Your task to perform on an android device: see tabs open on other devices in the chrome app Image 0: 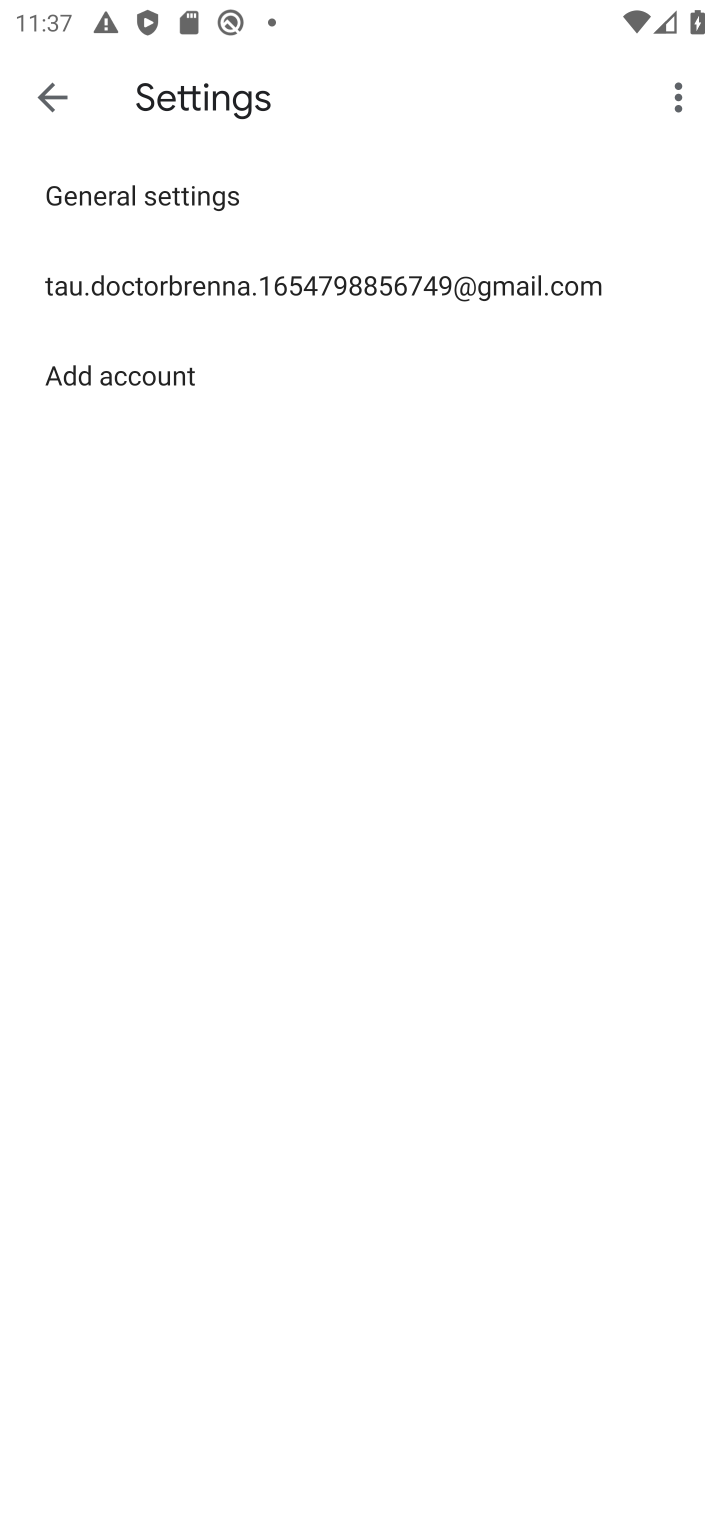
Step 0: press home button
Your task to perform on an android device: see tabs open on other devices in the chrome app Image 1: 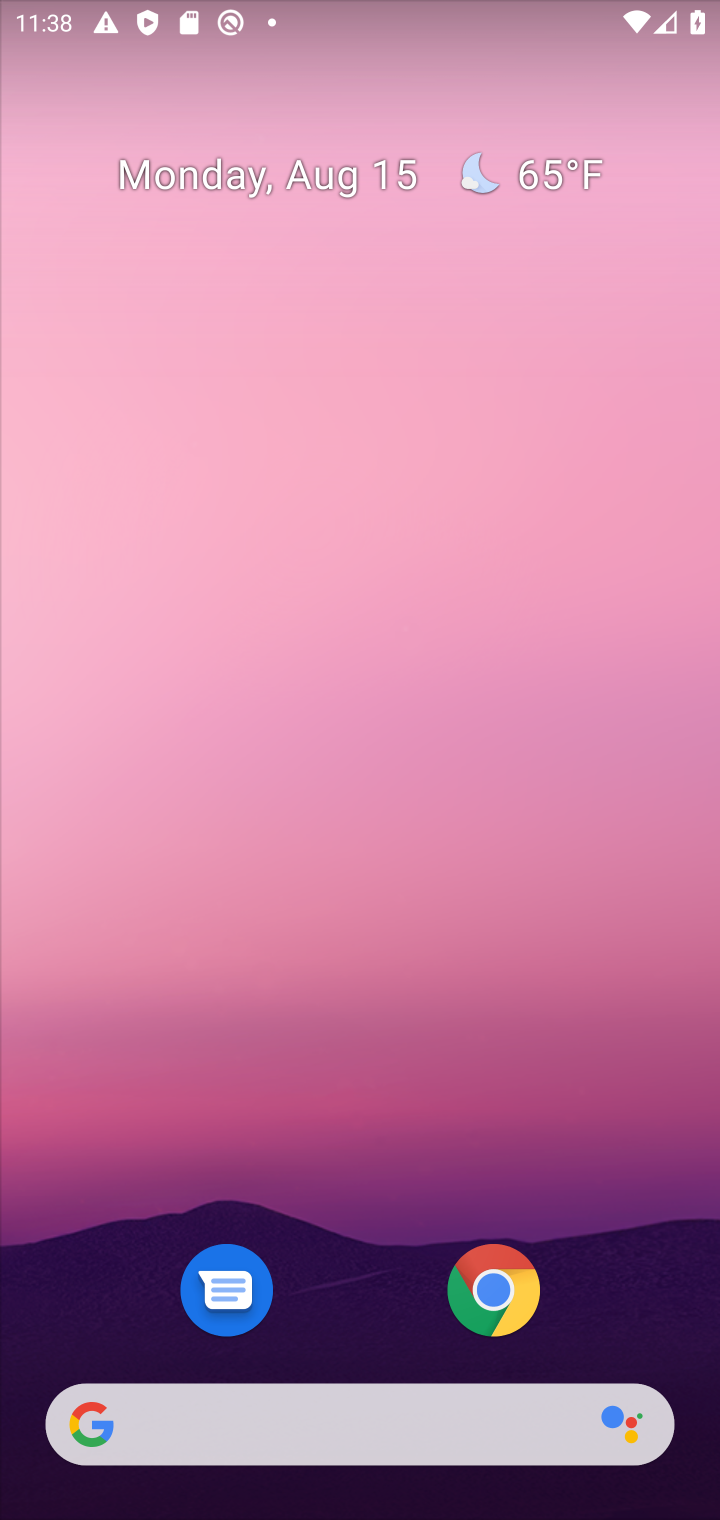
Step 1: click (512, 1261)
Your task to perform on an android device: see tabs open on other devices in the chrome app Image 2: 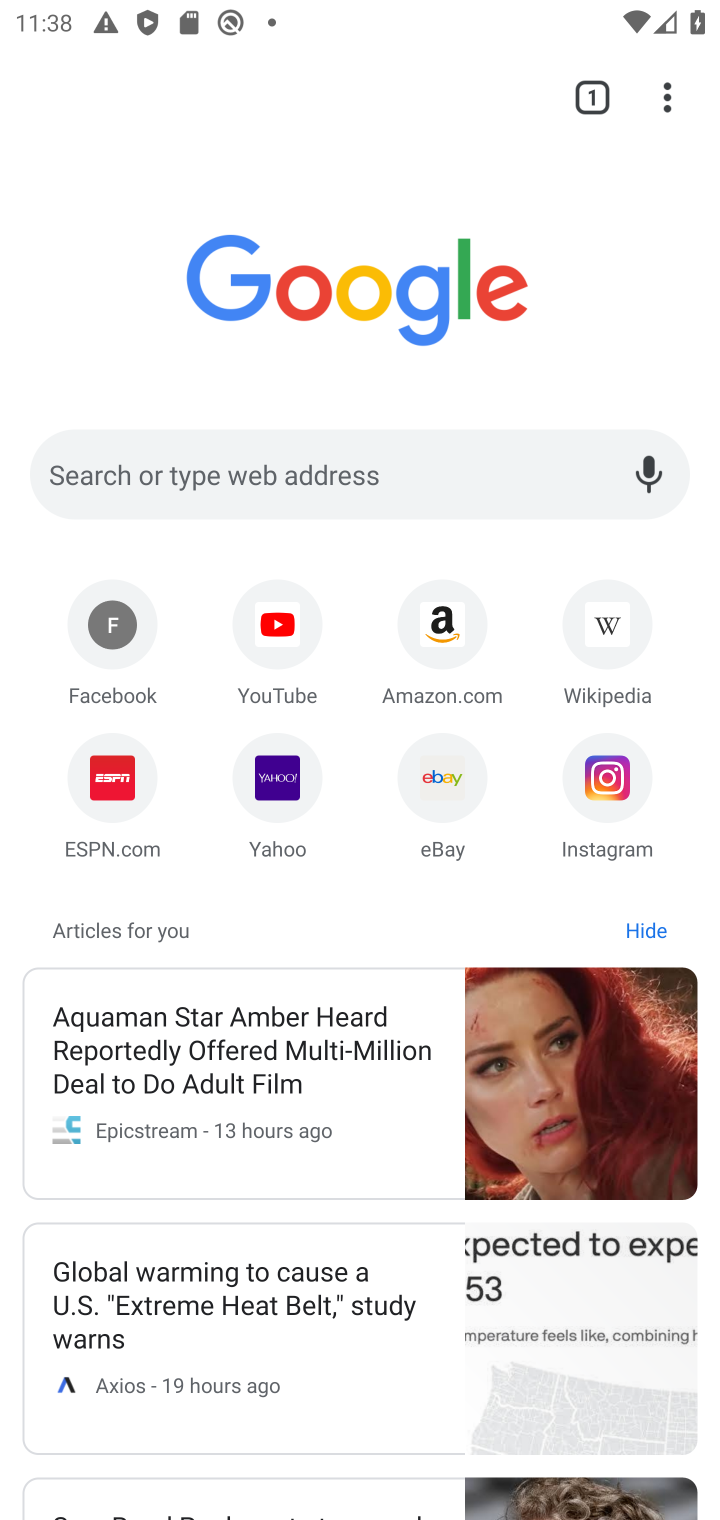
Step 2: task complete